Your task to perform on an android device: add a label to a message in the gmail app Image 0: 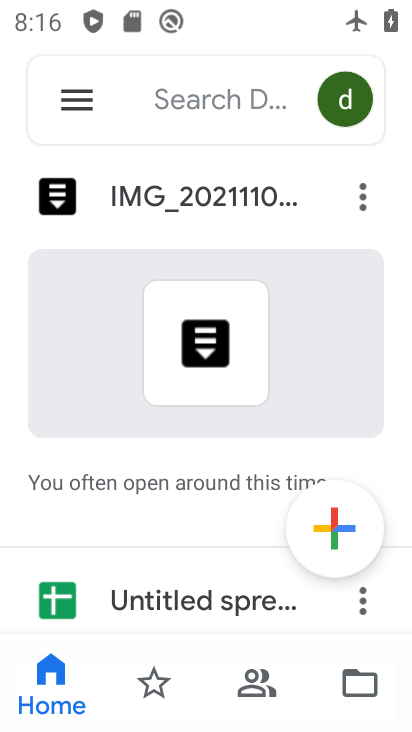
Step 0: press home button
Your task to perform on an android device: add a label to a message in the gmail app Image 1: 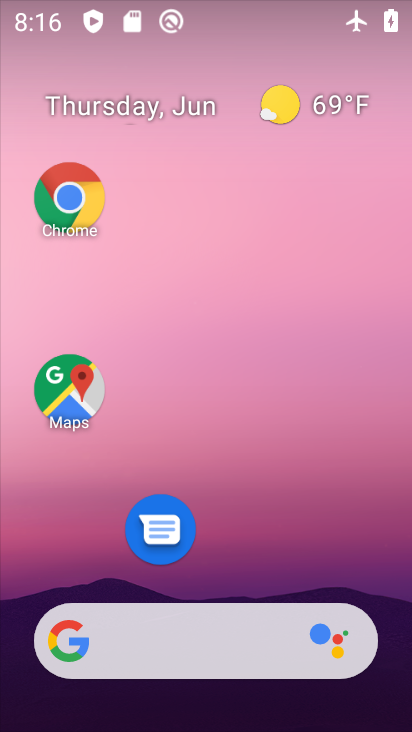
Step 1: drag from (208, 590) to (183, 232)
Your task to perform on an android device: add a label to a message in the gmail app Image 2: 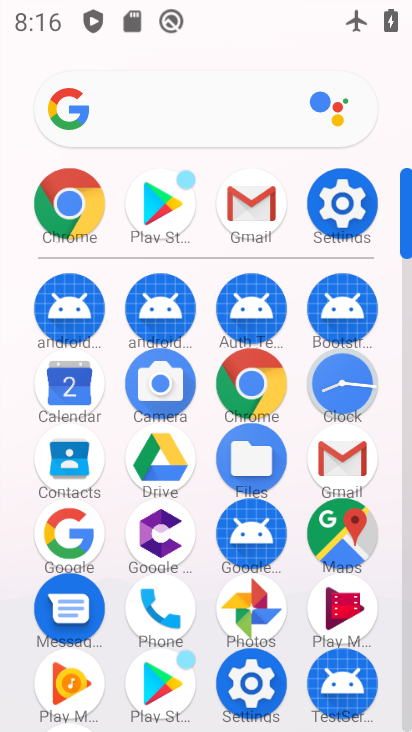
Step 2: click (362, 463)
Your task to perform on an android device: add a label to a message in the gmail app Image 3: 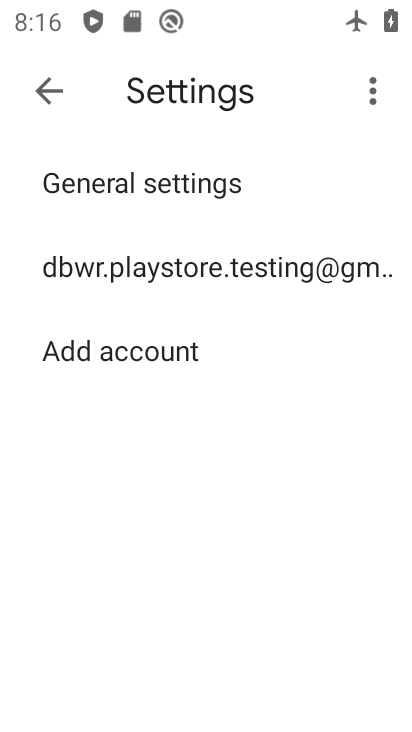
Step 3: click (50, 100)
Your task to perform on an android device: add a label to a message in the gmail app Image 4: 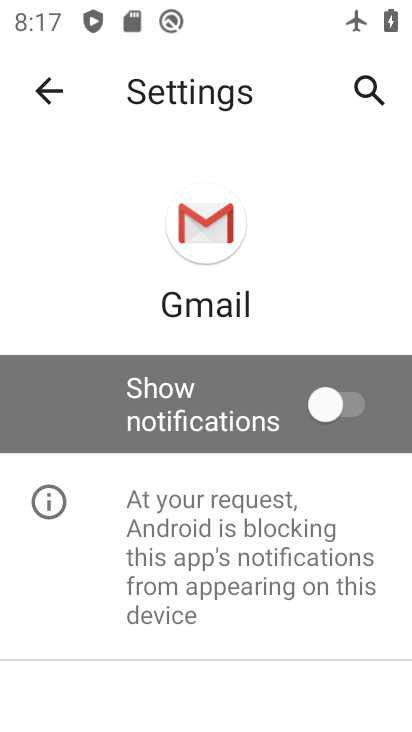
Step 4: click (50, 100)
Your task to perform on an android device: add a label to a message in the gmail app Image 5: 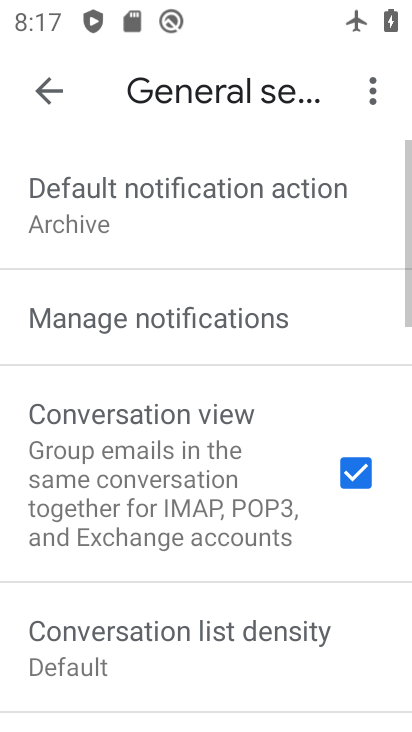
Step 5: click (50, 100)
Your task to perform on an android device: add a label to a message in the gmail app Image 6: 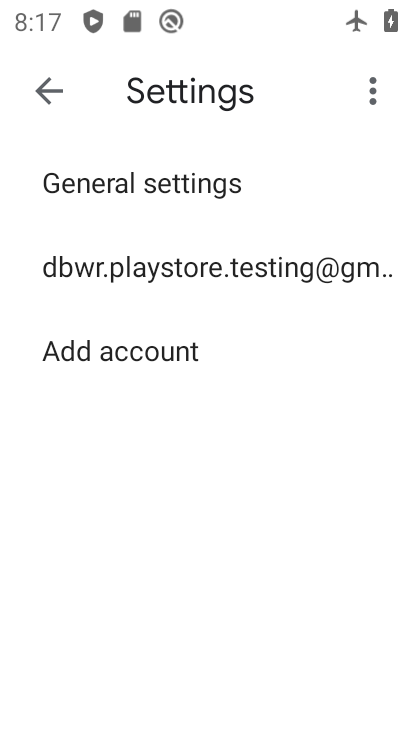
Step 6: click (50, 100)
Your task to perform on an android device: add a label to a message in the gmail app Image 7: 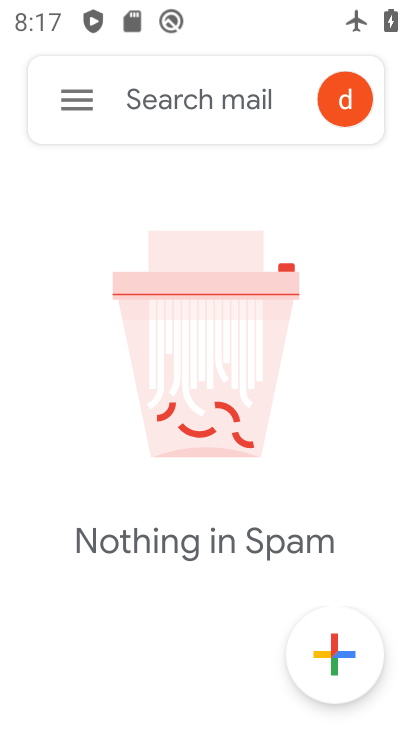
Step 7: task complete